Your task to perform on an android device: Open calendar and show me the second week of next month Image 0: 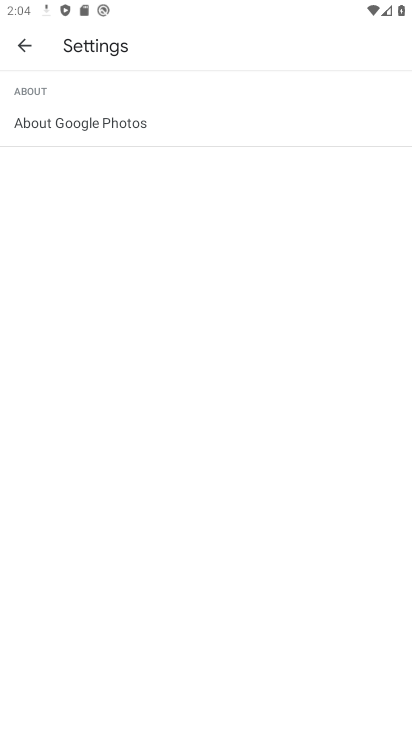
Step 0: press home button
Your task to perform on an android device: Open calendar and show me the second week of next month Image 1: 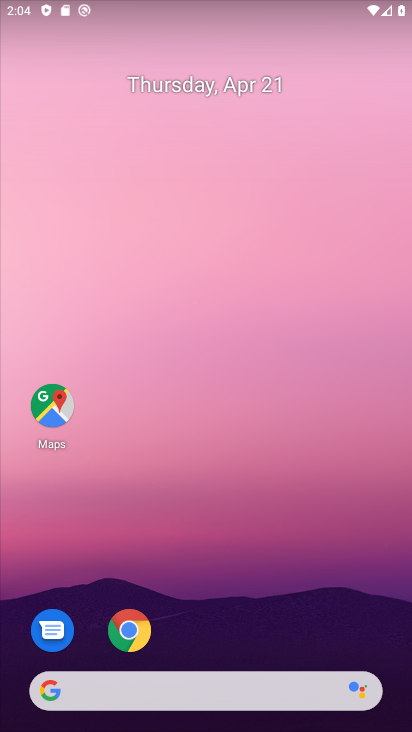
Step 1: drag from (333, 613) to (366, 38)
Your task to perform on an android device: Open calendar and show me the second week of next month Image 2: 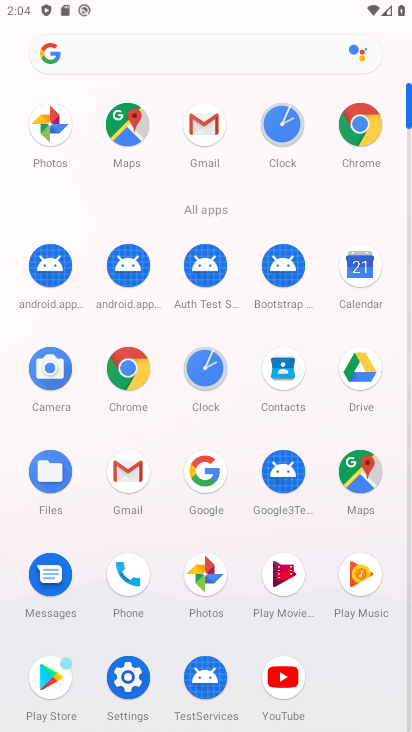
Step 2: click (279, 377)
Your task to perform on an android device: Open calendar and show me the second week of next month Image 3: 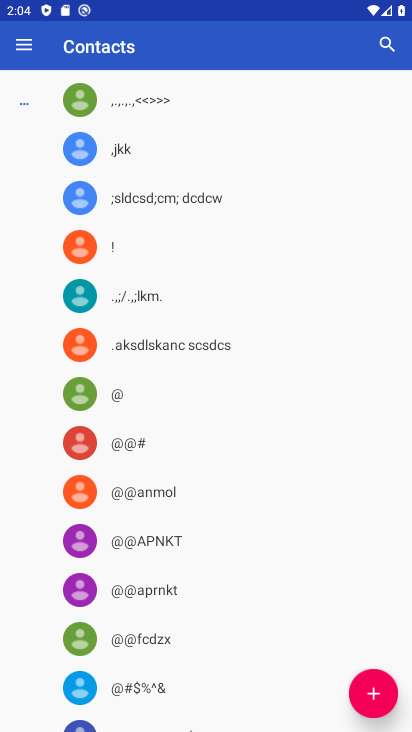
Step 3: press back button
Your task to perform on an android device: Open calendar and show me the second week of next month Image 4: 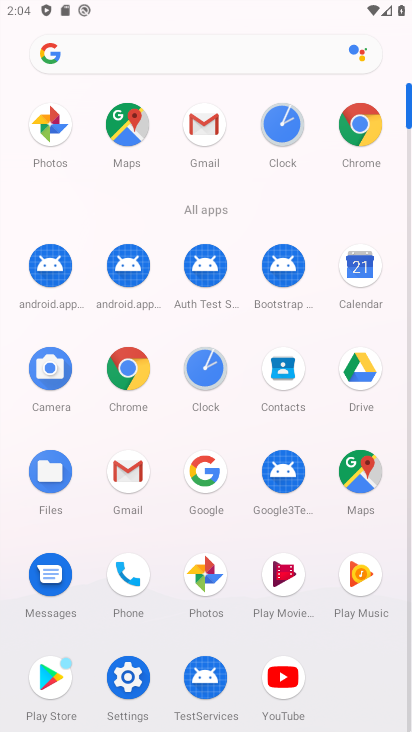
Step 4: click (361, 280)
Your task to perform on an android device: Open calendar and show me the second week of next month Image 5: 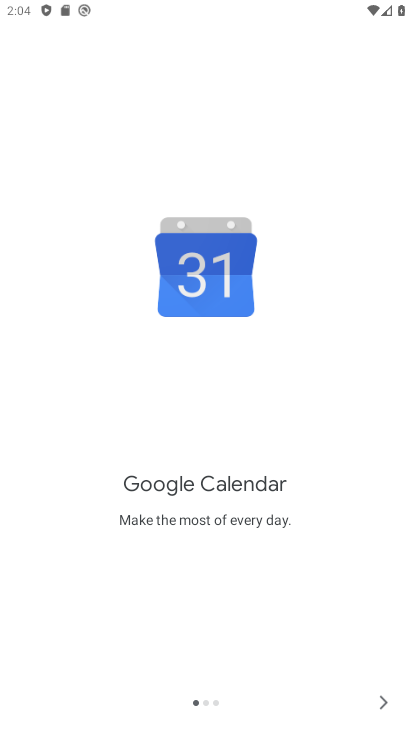
Step 5: click (368, 703)
Your task to perform on an android device: Open calendar and show me the second week of next month Image 6: 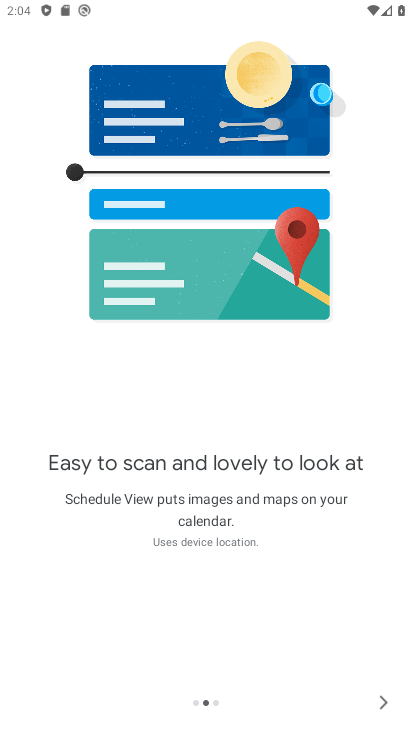
Step 6: click (374, 702)
Your task to perform on an android device: Open calendar and show me the second week of next month Image 7: 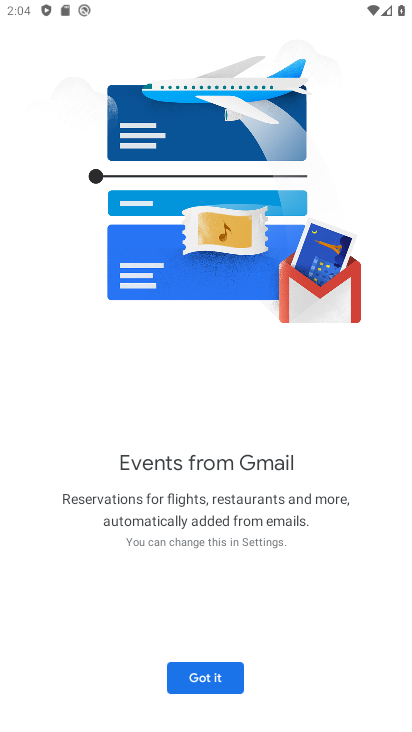
Step 7: click (222, 665)
Your task to perform on an android device: Open calendar and show me the second week of next month Image 8: 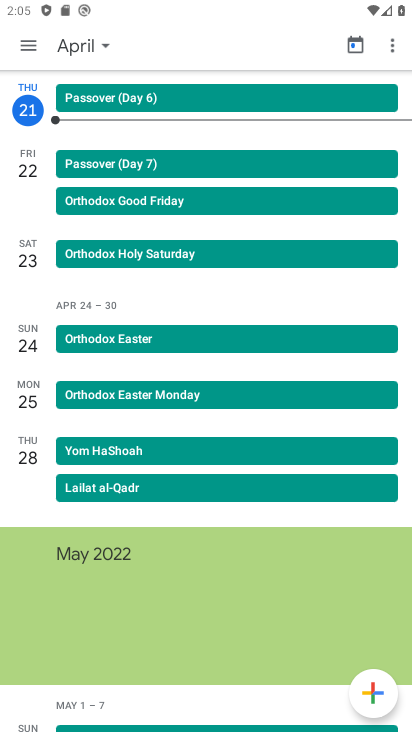
Step 8: click (104, 36)
Your task to perform on an android device: Open calendar and show me the second week of next month Image 9: 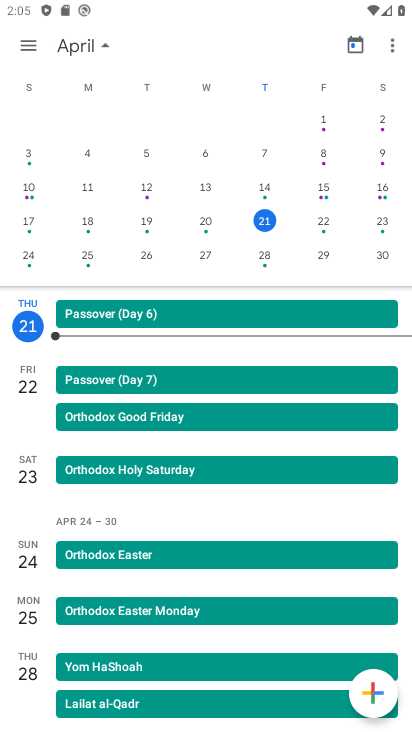
Step 9: drag from (379, 211) to (0, 230)
Your task to perform on an android device: Open calendar and show me the second week of next month Image 10: 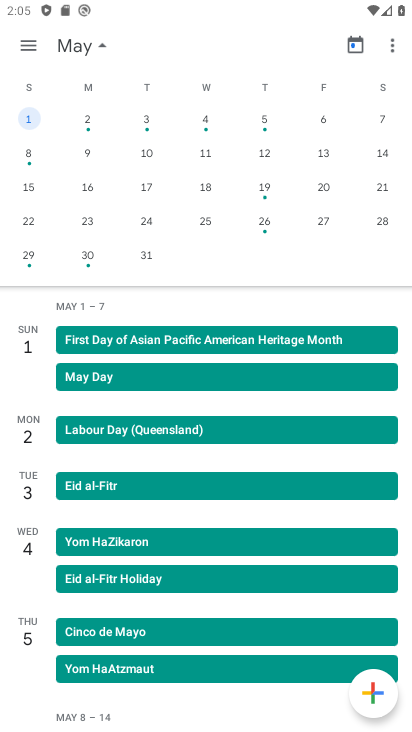
Step 10: drag from (364, 167) to (58, 167)
Your task to perform on an android device: Open calendar and show me the second week of next month Image 11: 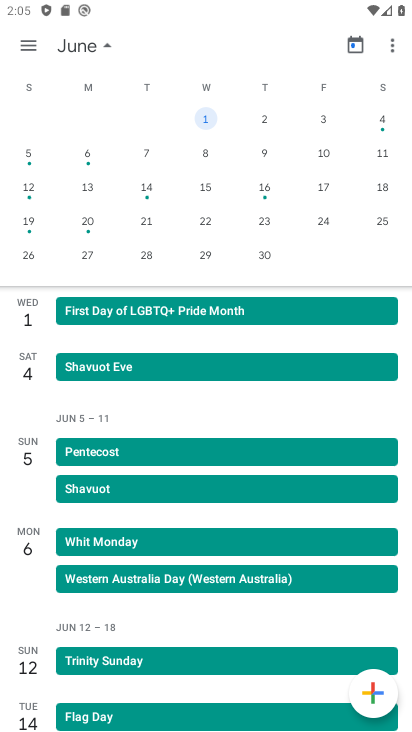
Step 11: drag from (36, 166) to (406, 207)
Your task to perform on an android device: Open calendar and show me the second week of next month Image 12: 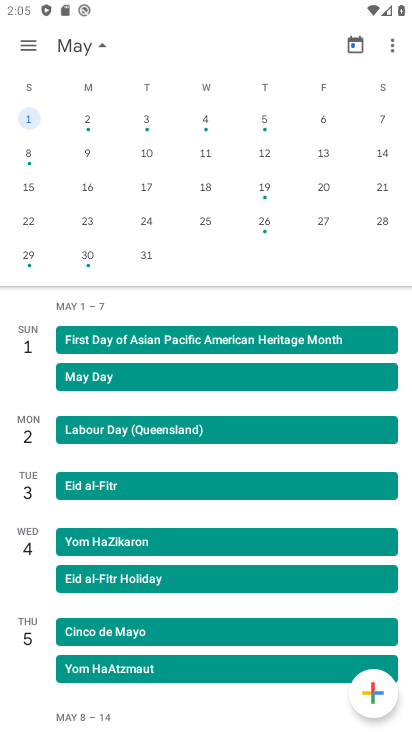
Step 12: click (151, 151)
Your task to perform on an android device: Open calendar and show me the second week of next month Image 13: 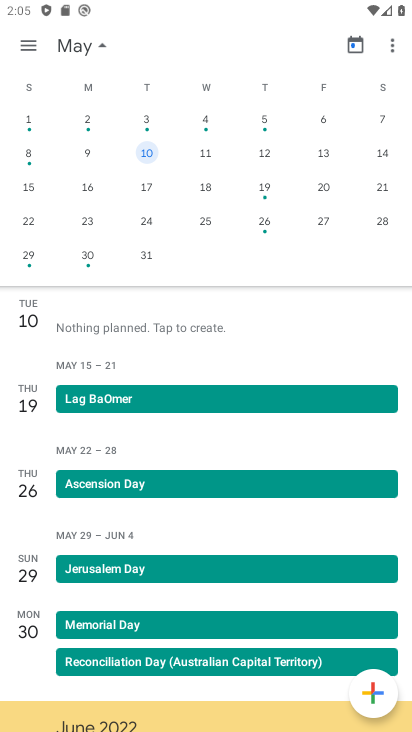
Step 13: task complete